Your task to perform on an android device: turn off notifications settings in the gmail app Image 0: 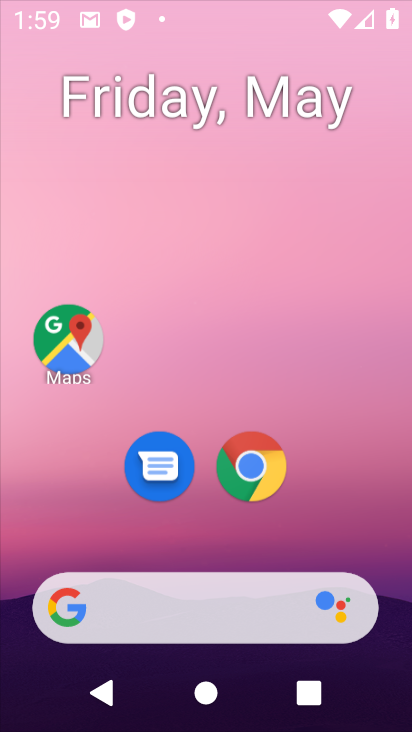
Step 0: click (240, 69)
Your task to perform on an android device: turn off notifications settings in the gmail app Image 1: 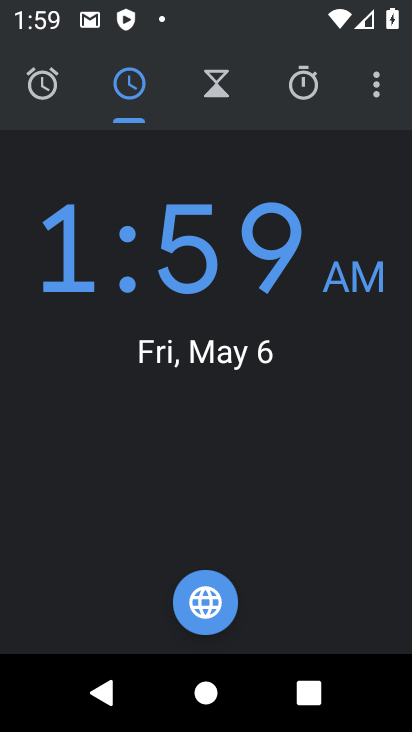
Step 1: press home button
Your task to perform on an android device: turn off notifications settings in the gmail app Image 2: 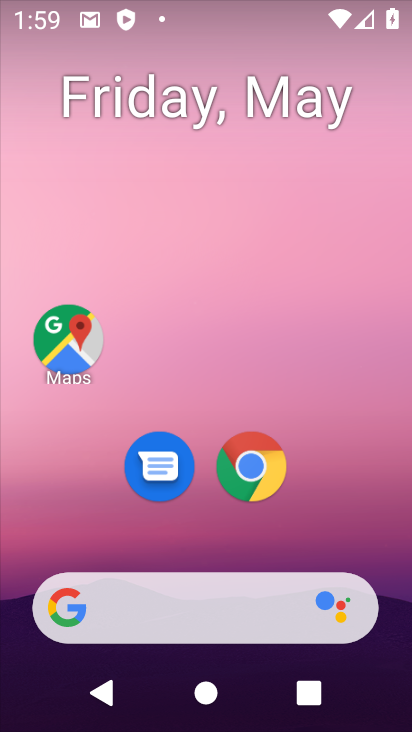
Step 2: drag from (143, 567) to (218, 61)
Your task to perform on an android device: turn off notifications settings in the gmail app Image 3: 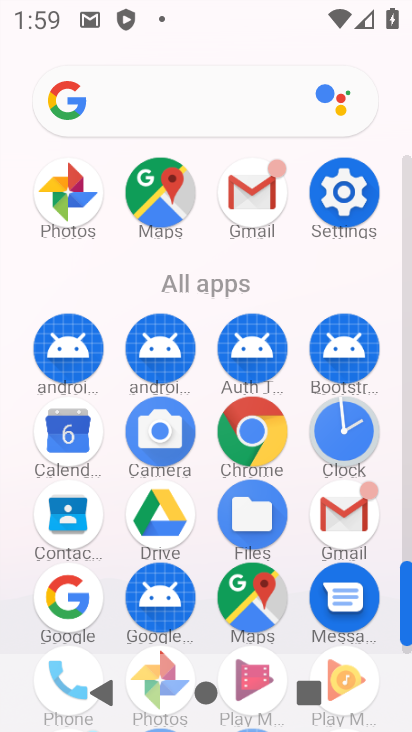
Step 3: drag from (245, 597) to (315, 257)
Your task to perform on an android device: turn off notifications settings in the gmail app Image 4: 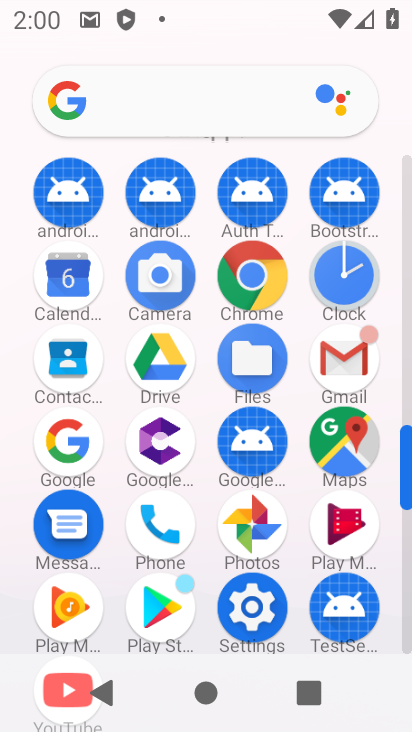
Step 4: click (357, 361)
Your task to perform on an android device: turn off notifications settings in the gmail app Image 5: 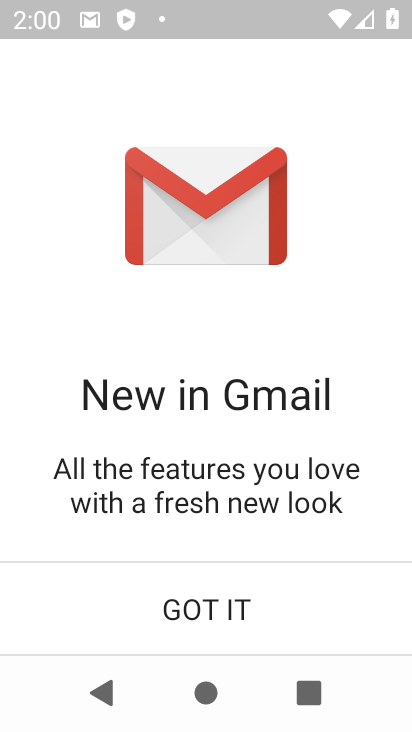
Step 5: click (265, 610)
Your task to perform on an android device: turn off notifications settings in the gmail app Image 6: 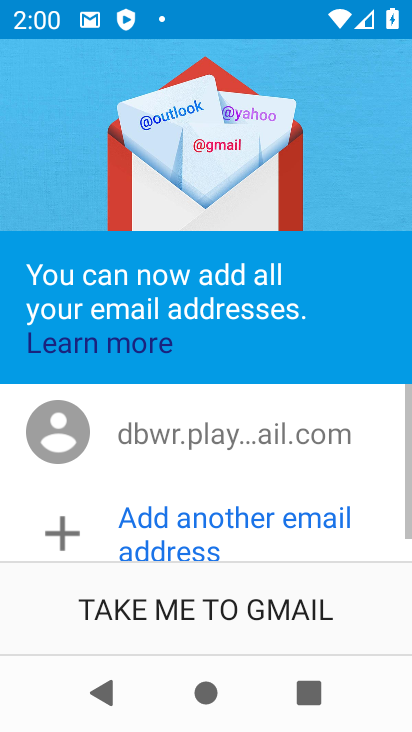
Step 6: click (265, 610)
Your task to perform on an android device: turn off notifications settings in the gmail app Image 7: 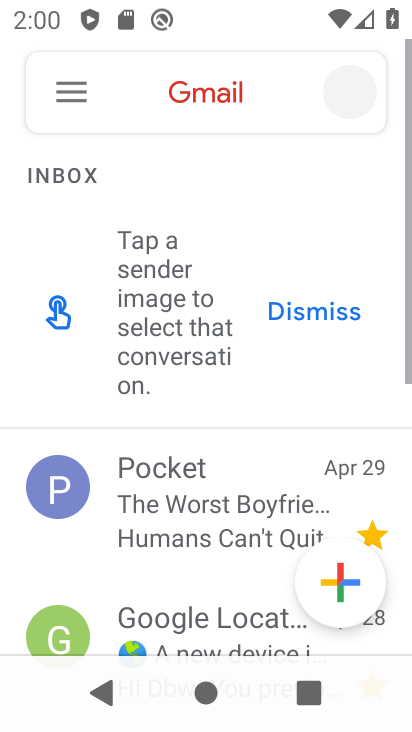
Step 7: click (70, 119)
Your task to perform on an android device: turn off notifications settings in the gmail app Image 8: 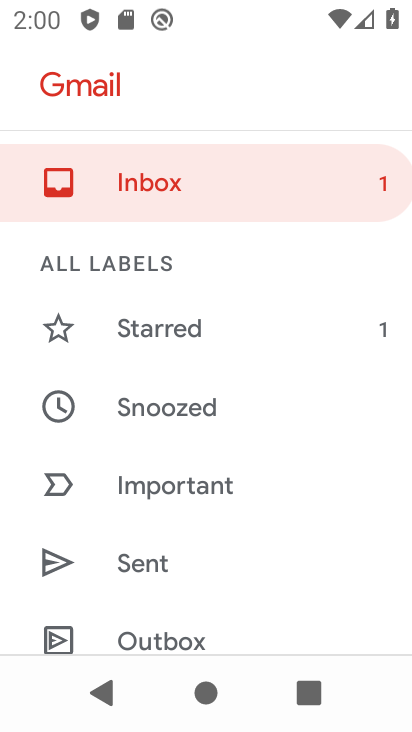
Step 8: drag from (168, 592) to (289, 173)
Your task to perform on an android device: turn off notifications settings in the gmail app Image 9: 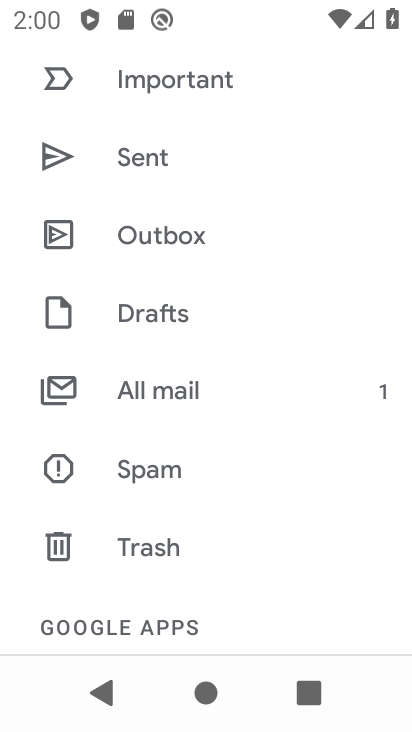
Step 9: drag from (192, 581) to (280, 183)
Your task to perform on an android device: turn off notifications settings in the gmail app Image 10: 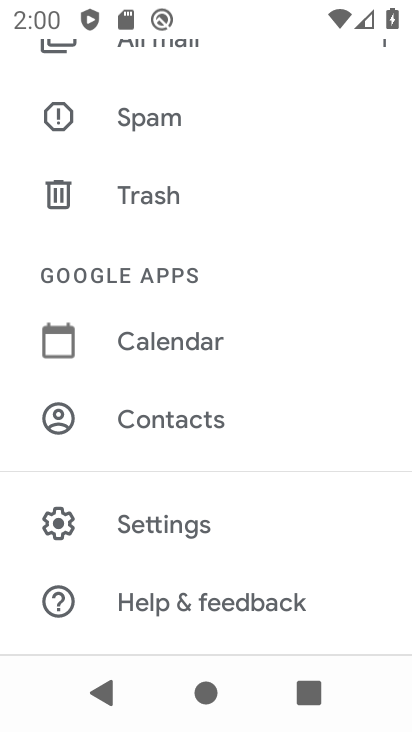
Step 10: click (228, 536)
Your task to perform on an android device: turn off notifications settings in the gmail app Image 11: 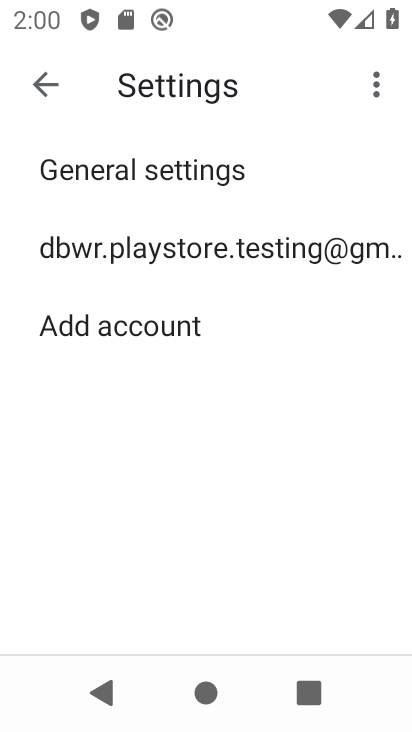
Step 11: click (283, 252)
Your task to perform on an android device: turn off notifications settings in the gmail app Image 12: 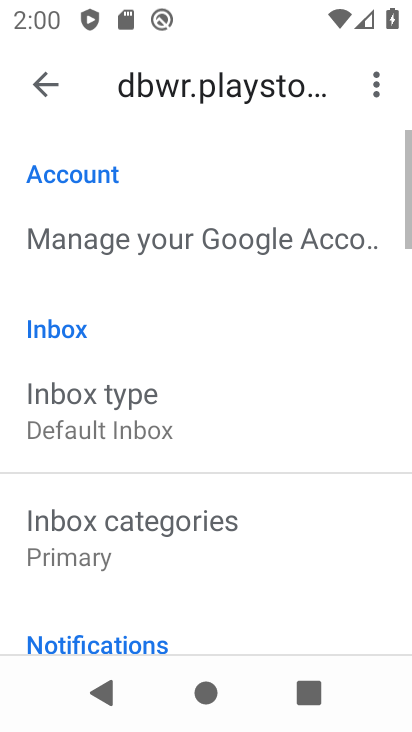
Step 12: drag from (218, 598) to (328, 110)
Your task to perform on an android device: turn off notifications settings in the gmail app Image 13: 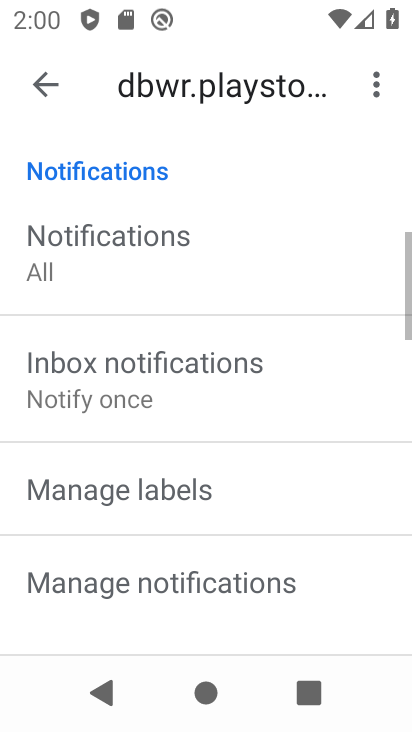
Step 13: drag from (186, 562) to (253, 317)
Your task to perform on an android device: turn off notifications settings in the gmail app Image 14: 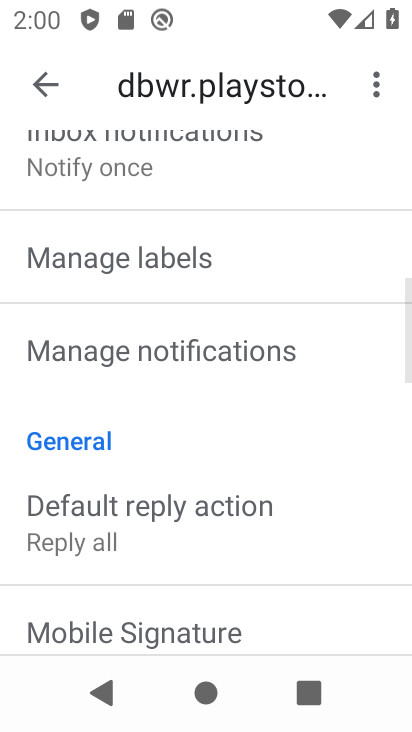
Step 14: click (234, 344)
Your task to perform on an android device: turn off notifications settings in the gmail app Image 15: 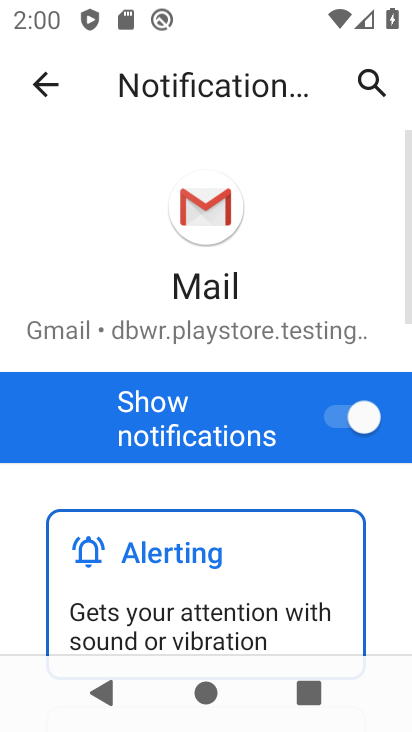
Step 15: click (331, 414)
Your task to perform on an android device: turn off notifications settings in the gmail app Image 16: 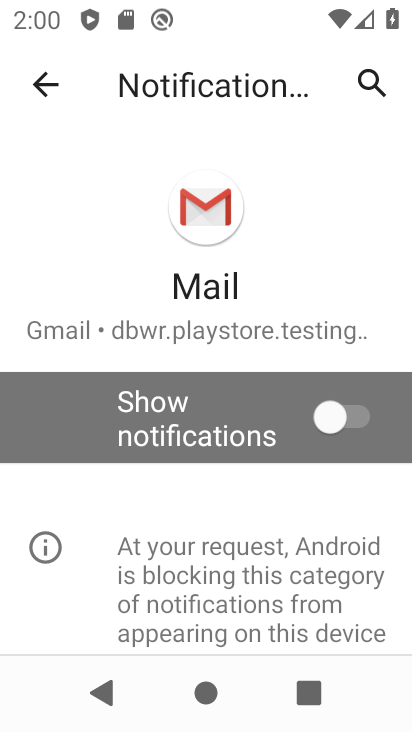
Step 16: task complete